Your task to perform on an android device: toggle wifi Image 0: 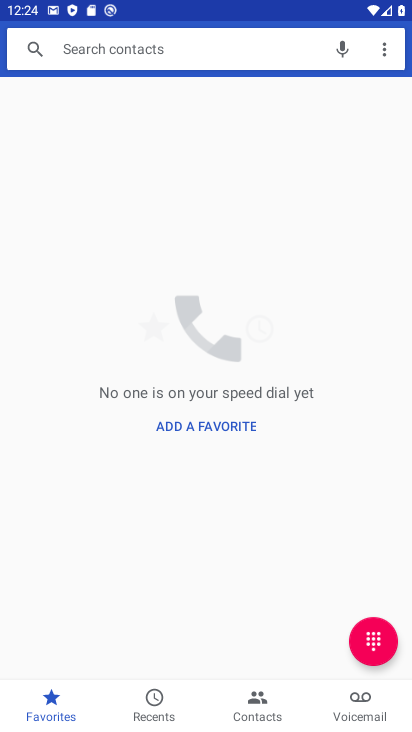
Step 0: press home button
Your task to perform on an android device: toggle wifi Image 1: 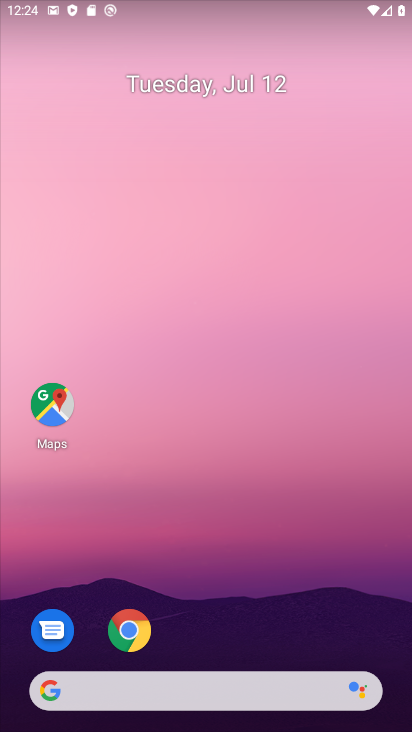
Step 1: drag from (296, 715) to (221, 158)
Your task to perform on an android device: toggle wifi Image 2: 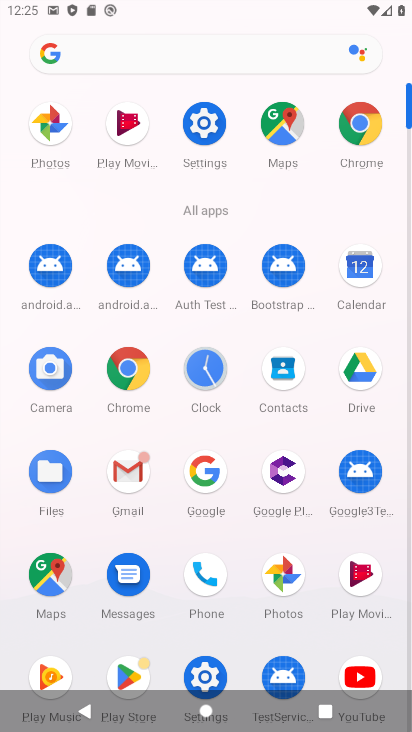
Step 2: drag from (201, 130) to (316, 643)
Your task to perform on an android device: toggle wifi Image 3: 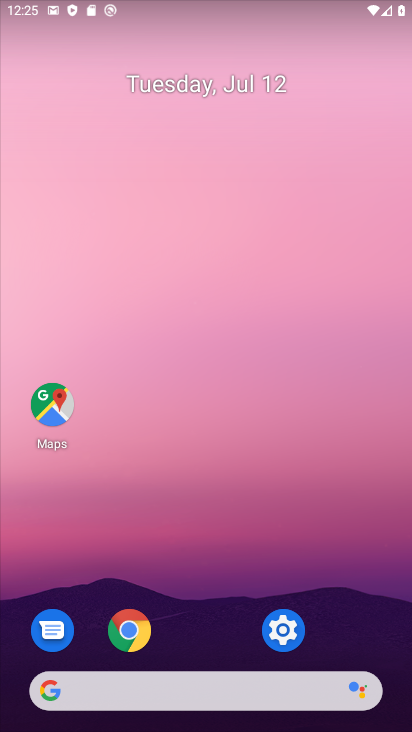
Step 3: click (284, 628)
Your task to perform on an android device: toggle wifi Image 4: 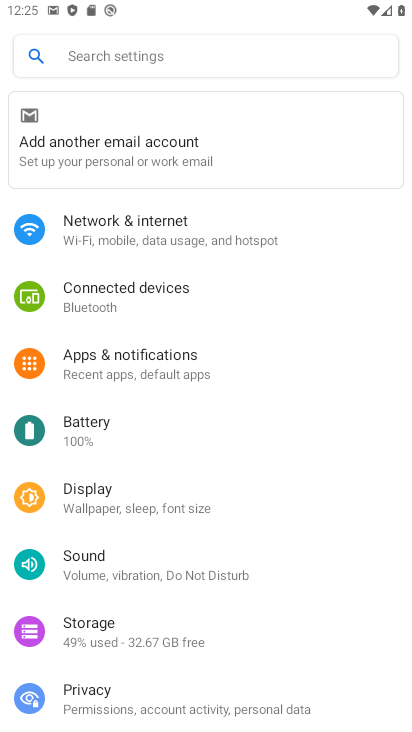
Step 4: click (130, 241)
Your task to perform on an android device: toggle wifi Image 5: 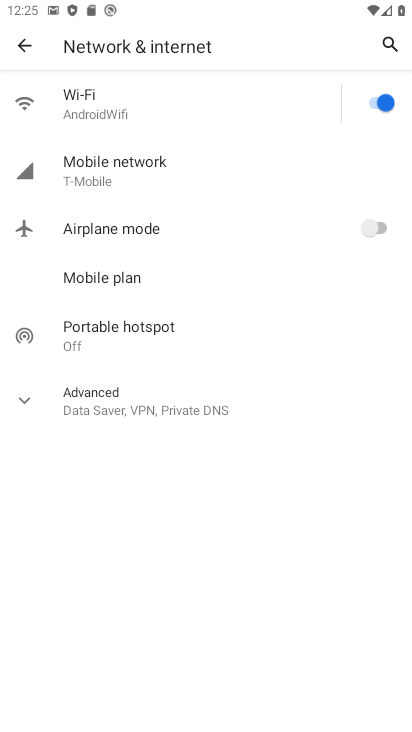
Step 5: click (192, 117)
Your task to perform on an android device: toggle wifi Image 6: 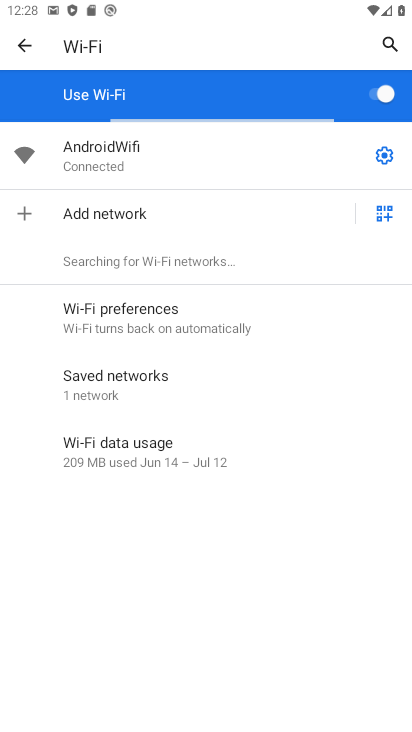
Step 6: task complete